Your task to perform on an android device: Go to Reddit.com Image 0: 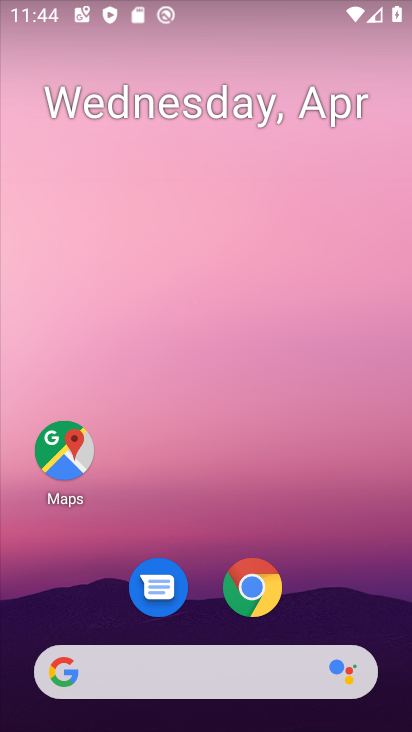
Step 0: click (245, 576)
Your task to perform on an android device: Go to Reddit.com Image 1: 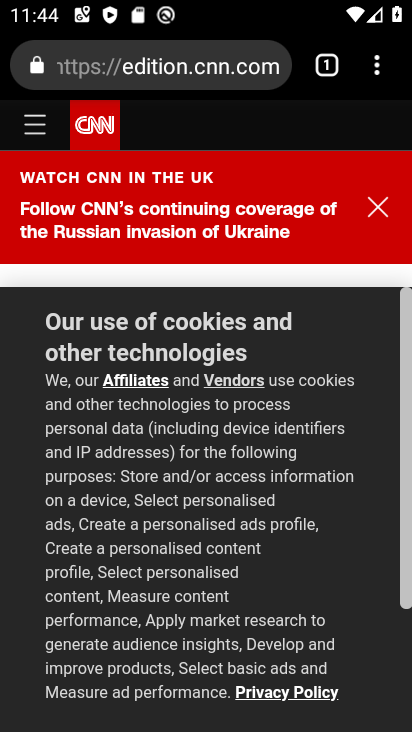
Step 1: click (161, 66)
Your task to perform on an android device: Go to Reddit.com Image 2: 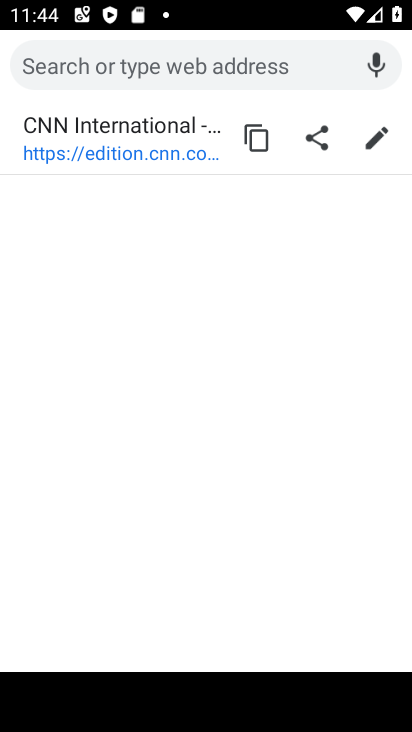
Step 2: type "Reddit.com"
Your task to perform on an android device: Go to Reddit.com Image 3: 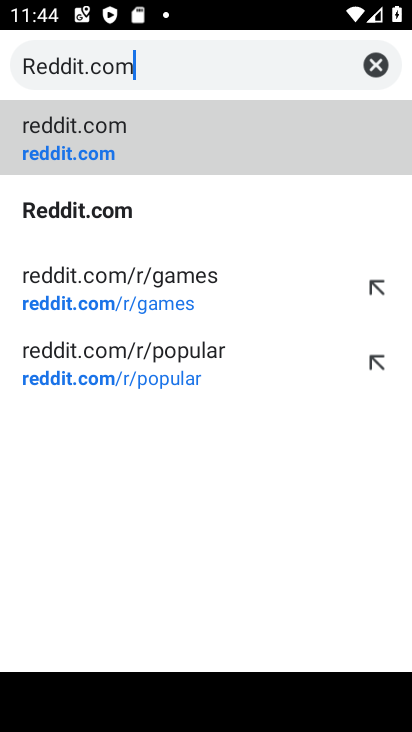
Step 3: click (93, 151)
Your task to perform on an android device: Go to Reddit.com Image 4: 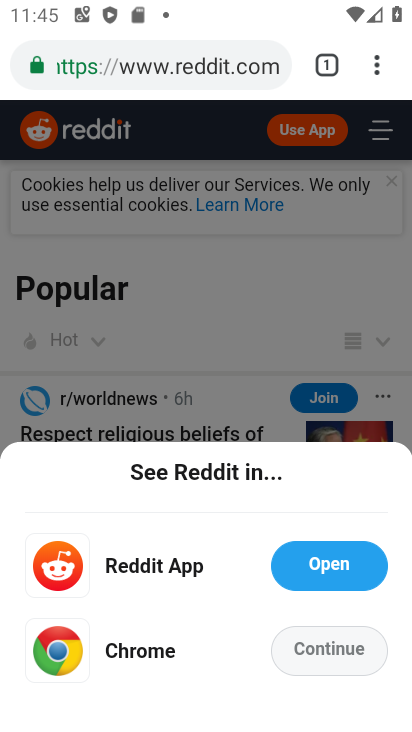
Step 4: task complete